Your task to perform on an android device: Search for Italian restaurants on Maps Image 0: 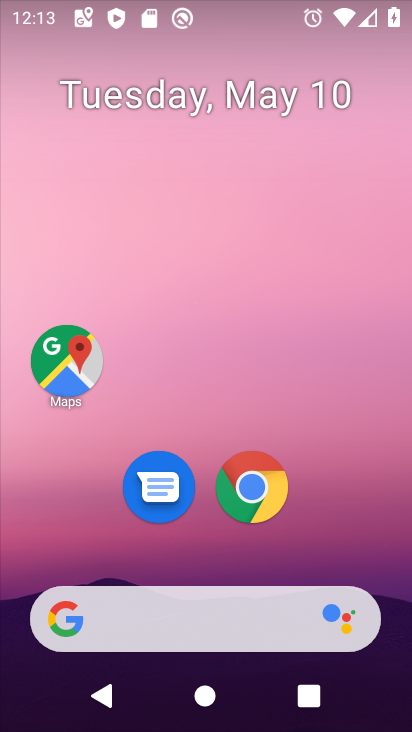
Step 0: click (62, 376)
Your task to perform on an android device: Search for Italian restaurants on Maps Image 1: 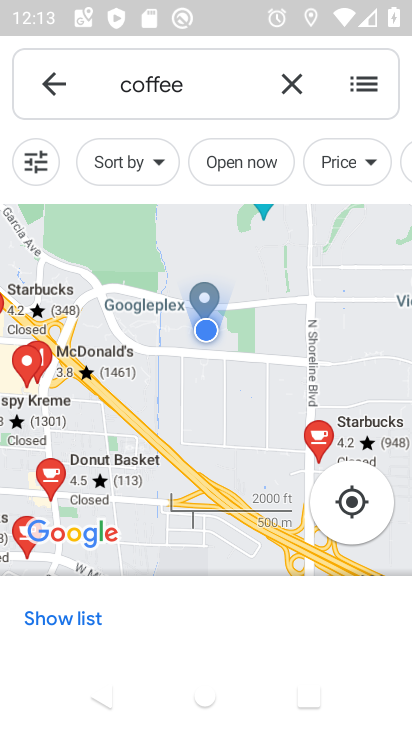
Step 1: click (293, 91)
Your task to perform on an android device: Search for Italian restaurants on Maps Image 2: 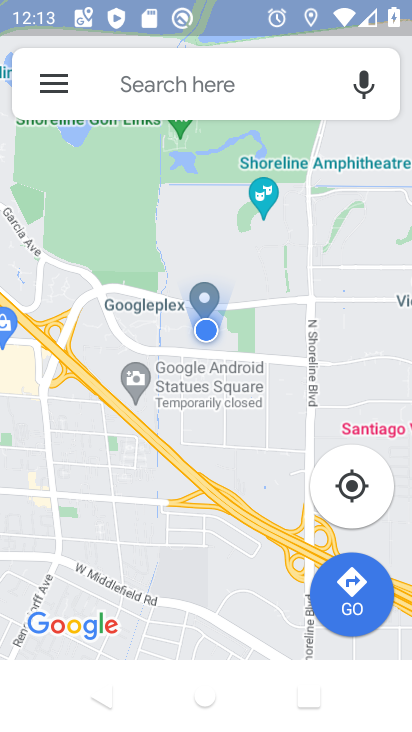
Step 2: click (293, 91)
Your task to perform on an android device: Search for Italian restaurants on Maps Image 3: 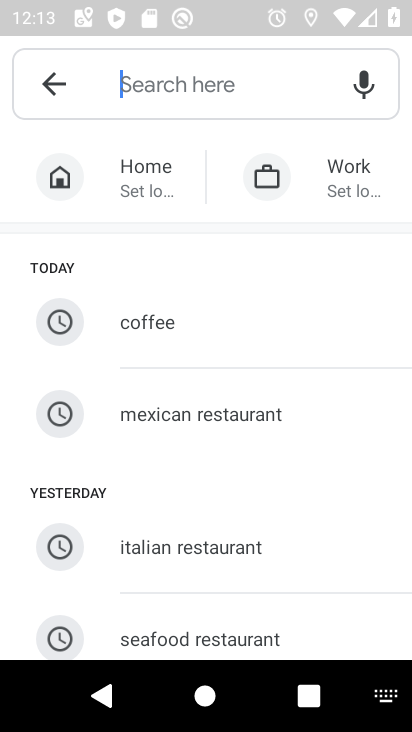
Step 3: click (259, 550)
Your task to perform on an android device: Search for Italian restaurants on Maps Image 4: 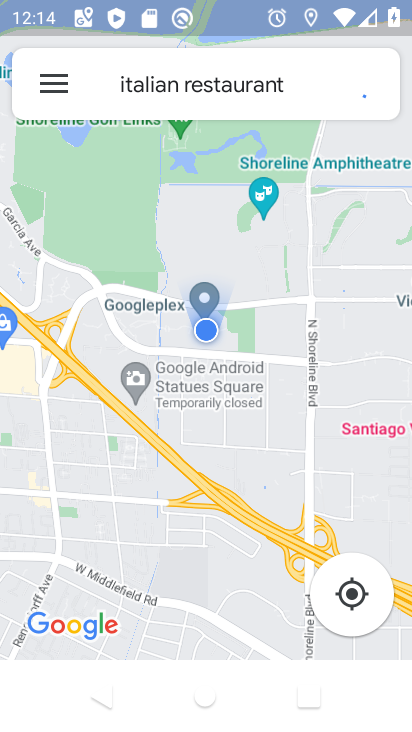
Step 4: task complete